Your task to perform on an android device: Go to privacy settings Image 0: 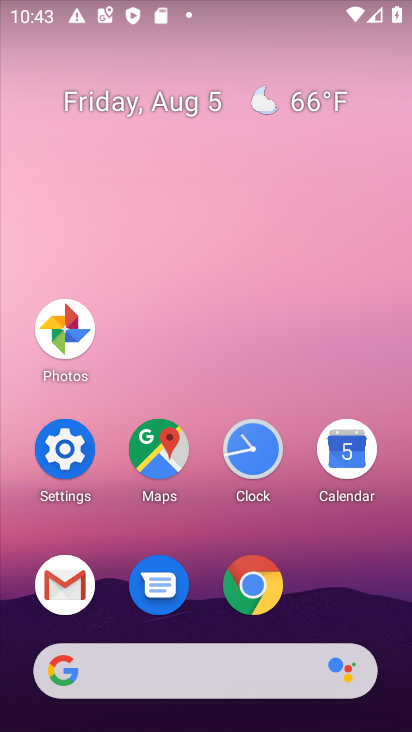
Step 0: click (63, 445)
Your task to perform on an android device: Go to privacy settings Image 1: 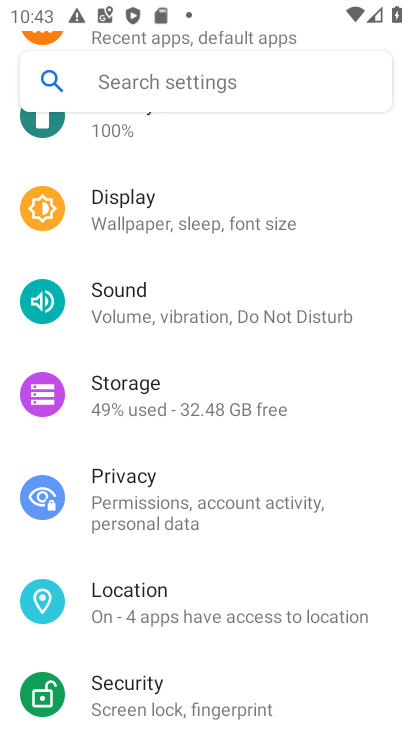
Step 1: click (135, 477)
Your task to perform on an android device: Go to privacy settings Image 2: 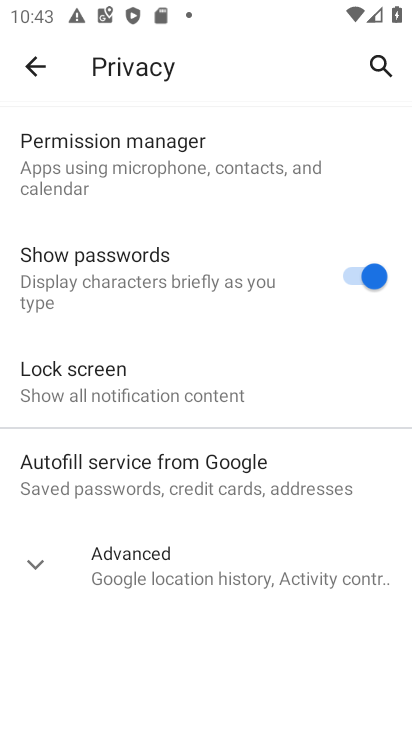
Step 2: task complete